Your task to perform on an android device: What is the capital of France? Image 0: 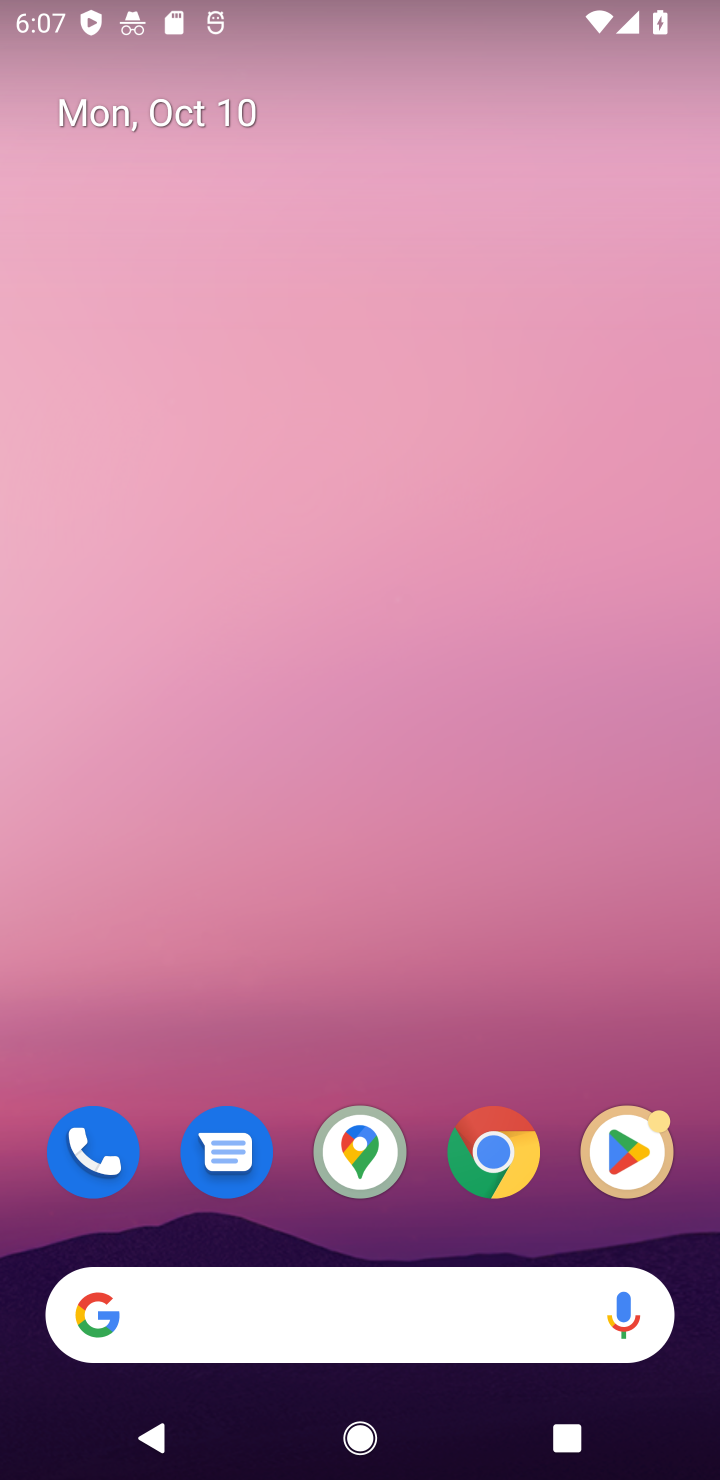
Step 0: click (495, 1156)
Your task to perform on an android device: What is the capital of France? Image 1: 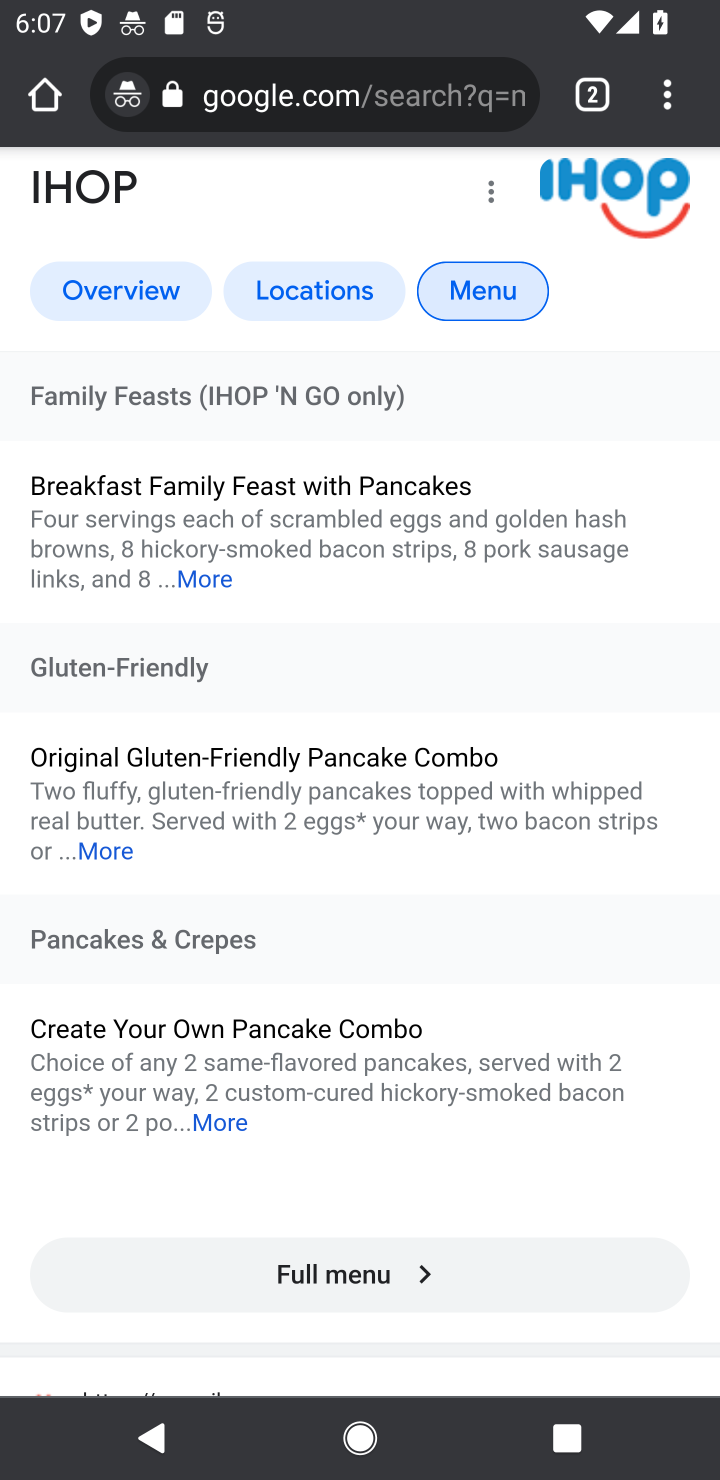
Step 1: click (462, 109)
Your task to perform on an android device: What is the capital of France? Image 2: 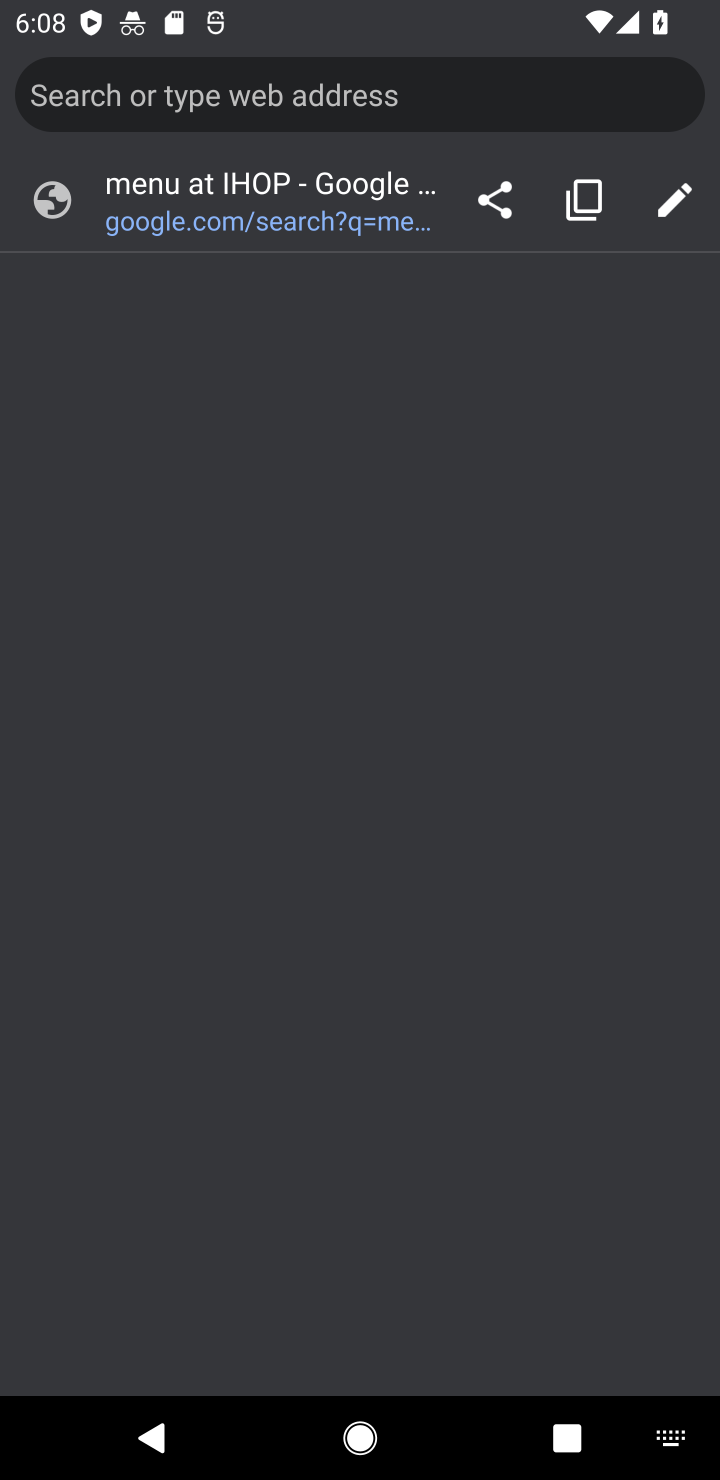
Step 2: type "capital of France"
Your task to perform on an android device: What is the capital of France? Image 3: 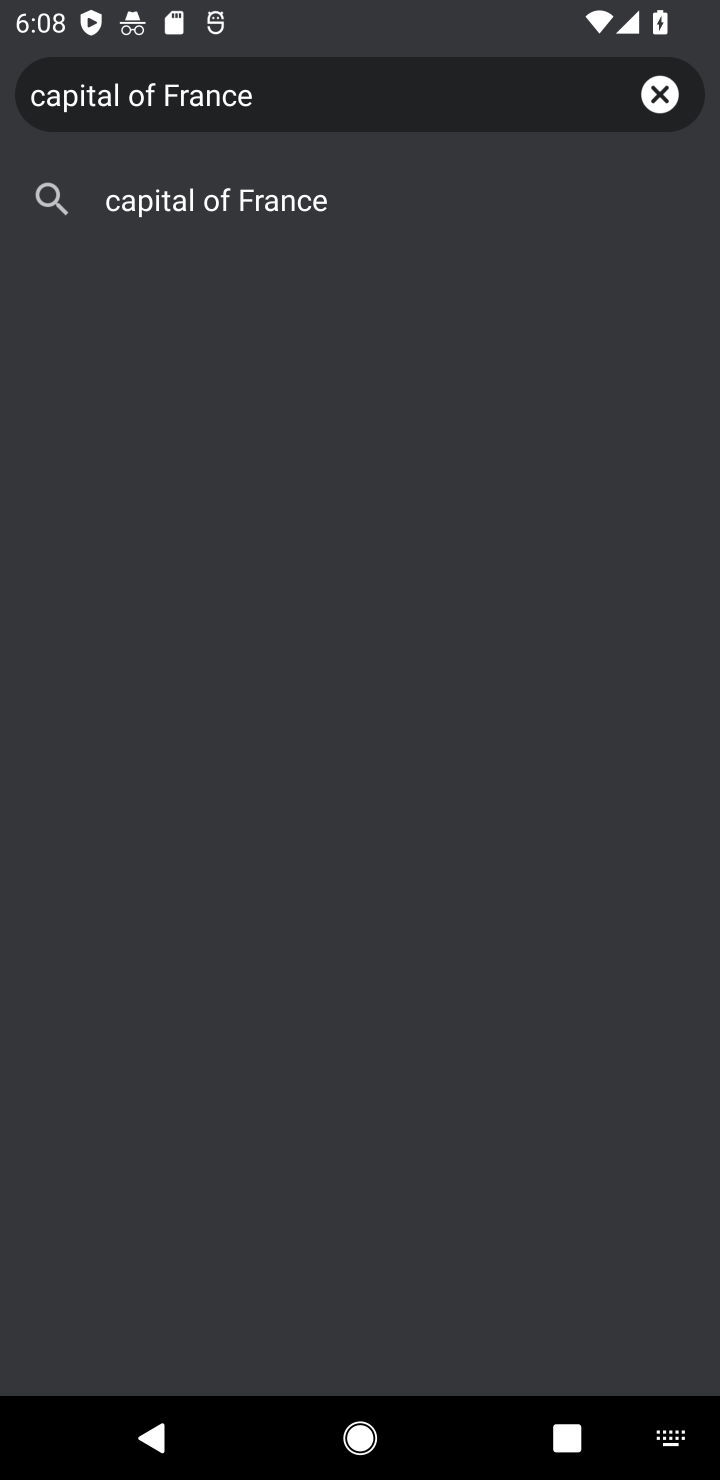
Step 3: click (250, 205)
Your task to perform on an android device: What is the capital of France? Image 4: 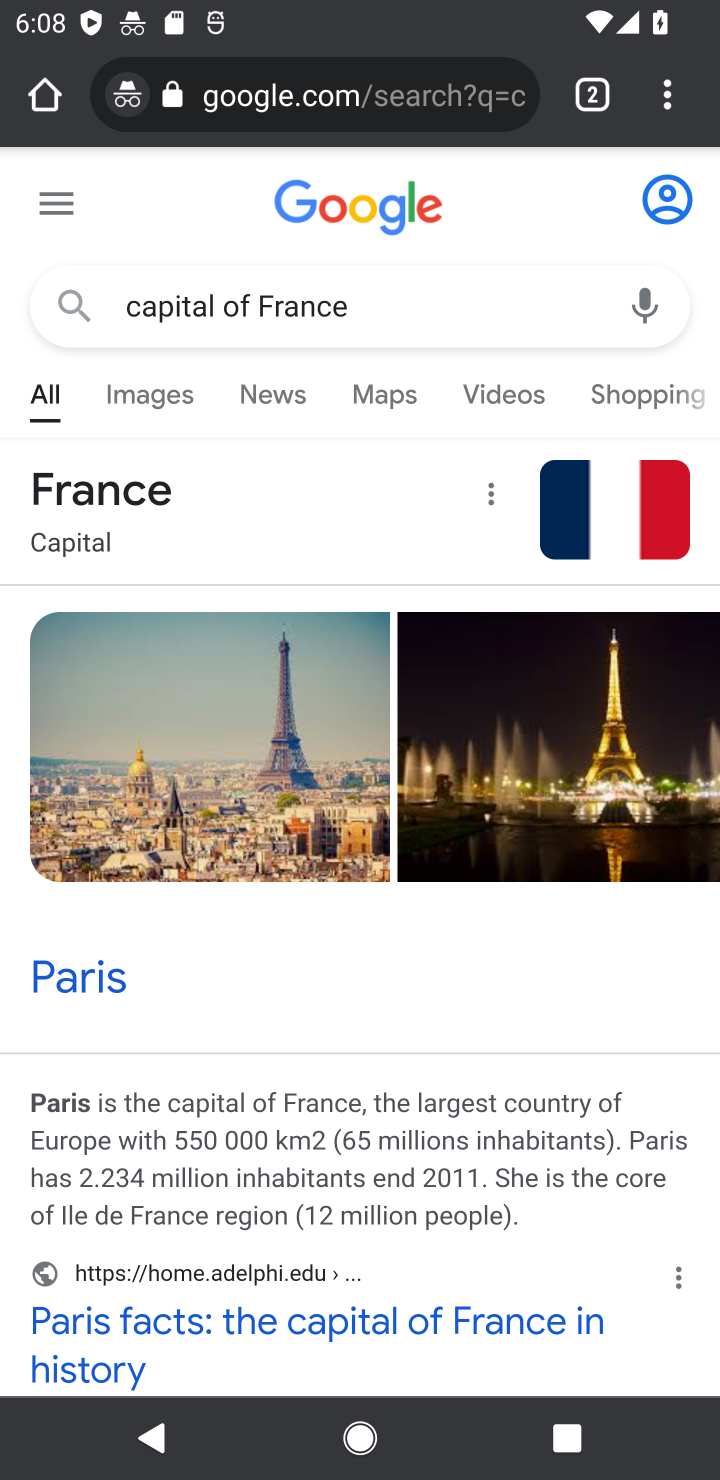
Step 4: task complete